Your task to perform on an android device: toggle javascript in the chrome app Image 0: 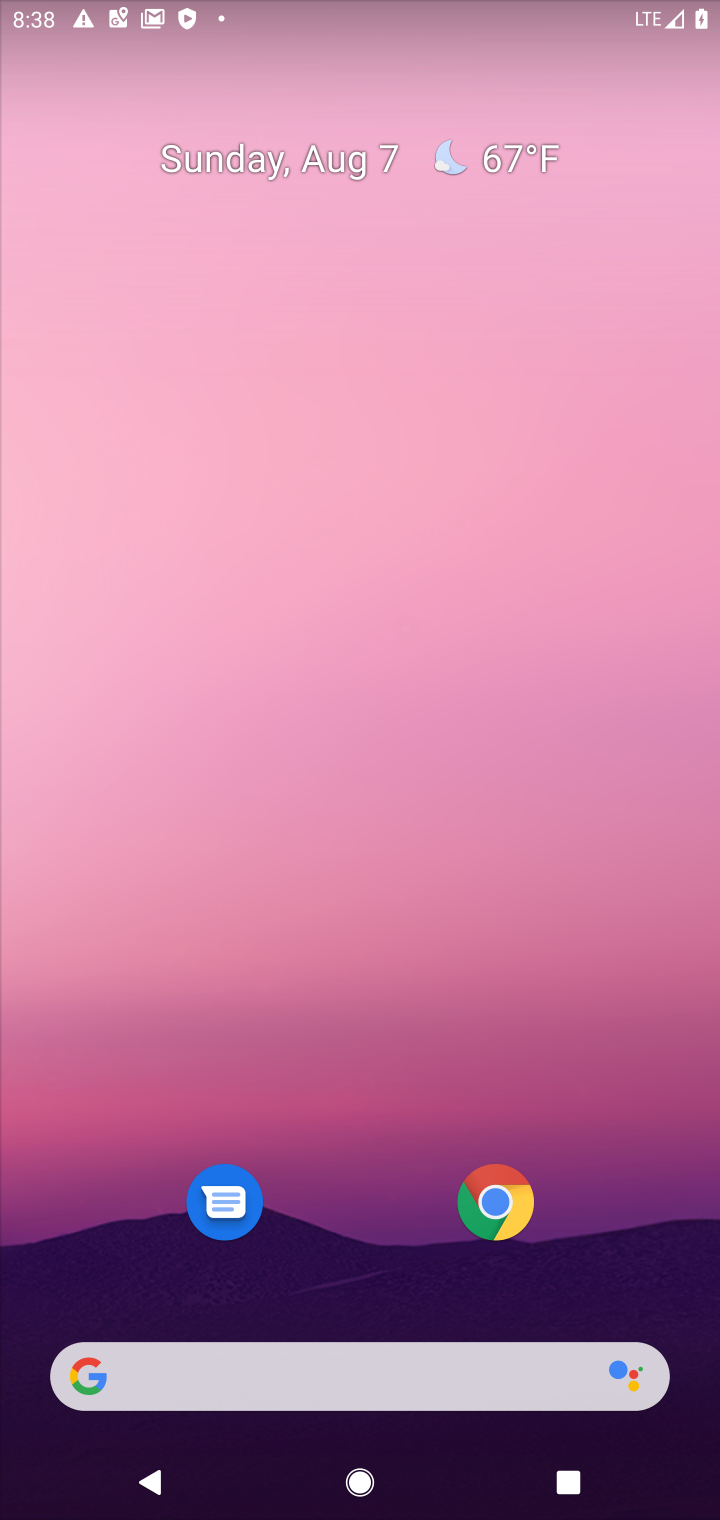
Step 0: click (501, 1201)
Your task to perform on an android device: toggle javascript in the chrome app Image 1: 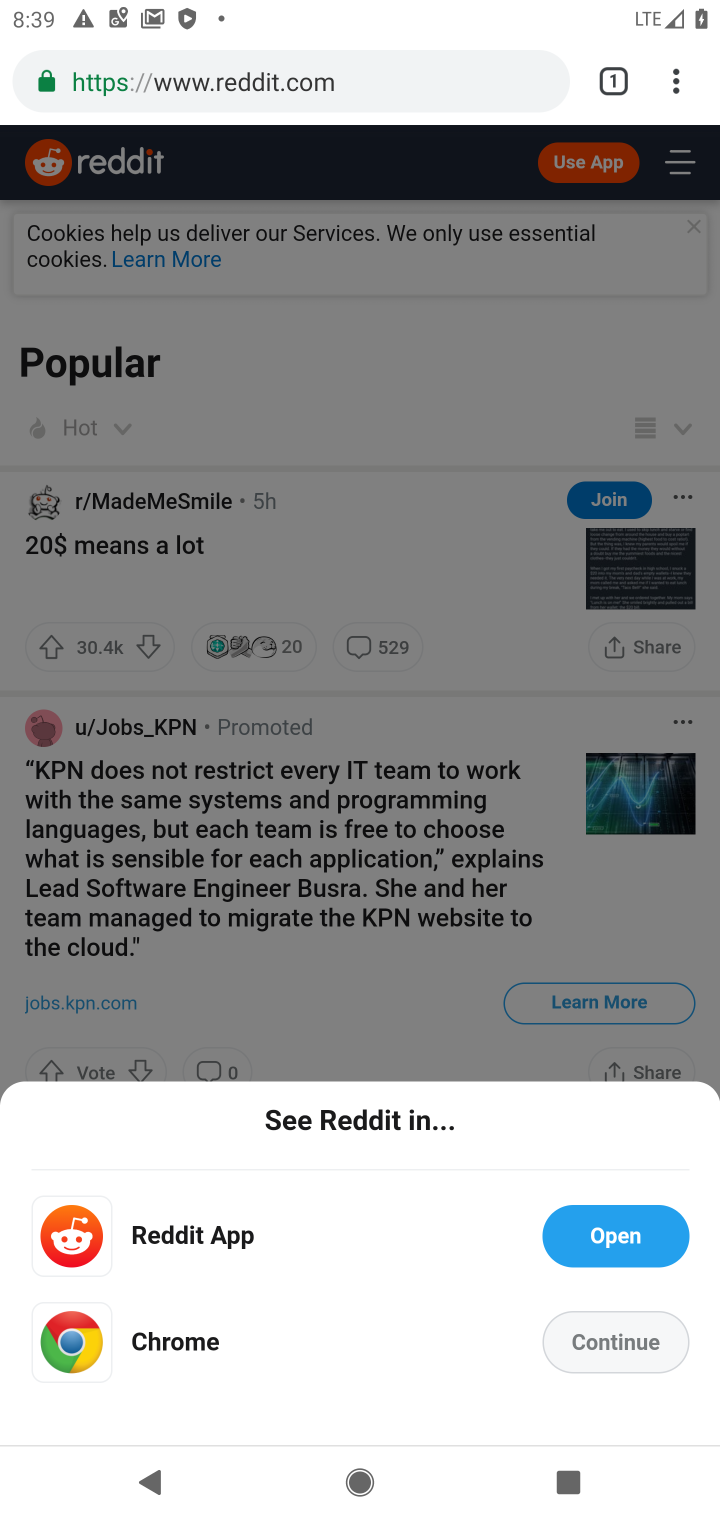
Step 1: click (695, 89)
Your task to perform on an android device: toggle javascript in the chrome app Image 2: 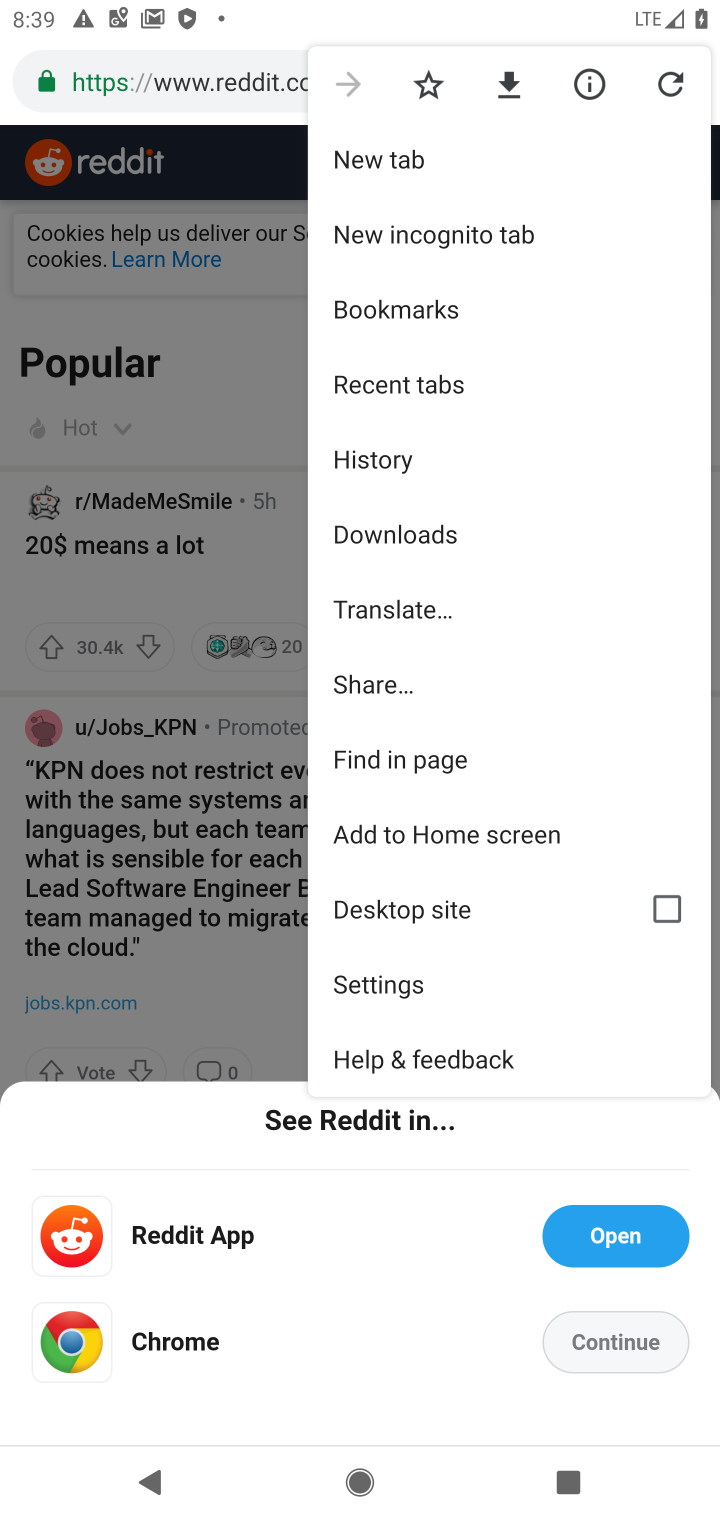
Step 2: click (401, 990)
Your task to perform on an android device: toggle javascript in the chrome app Image 3: 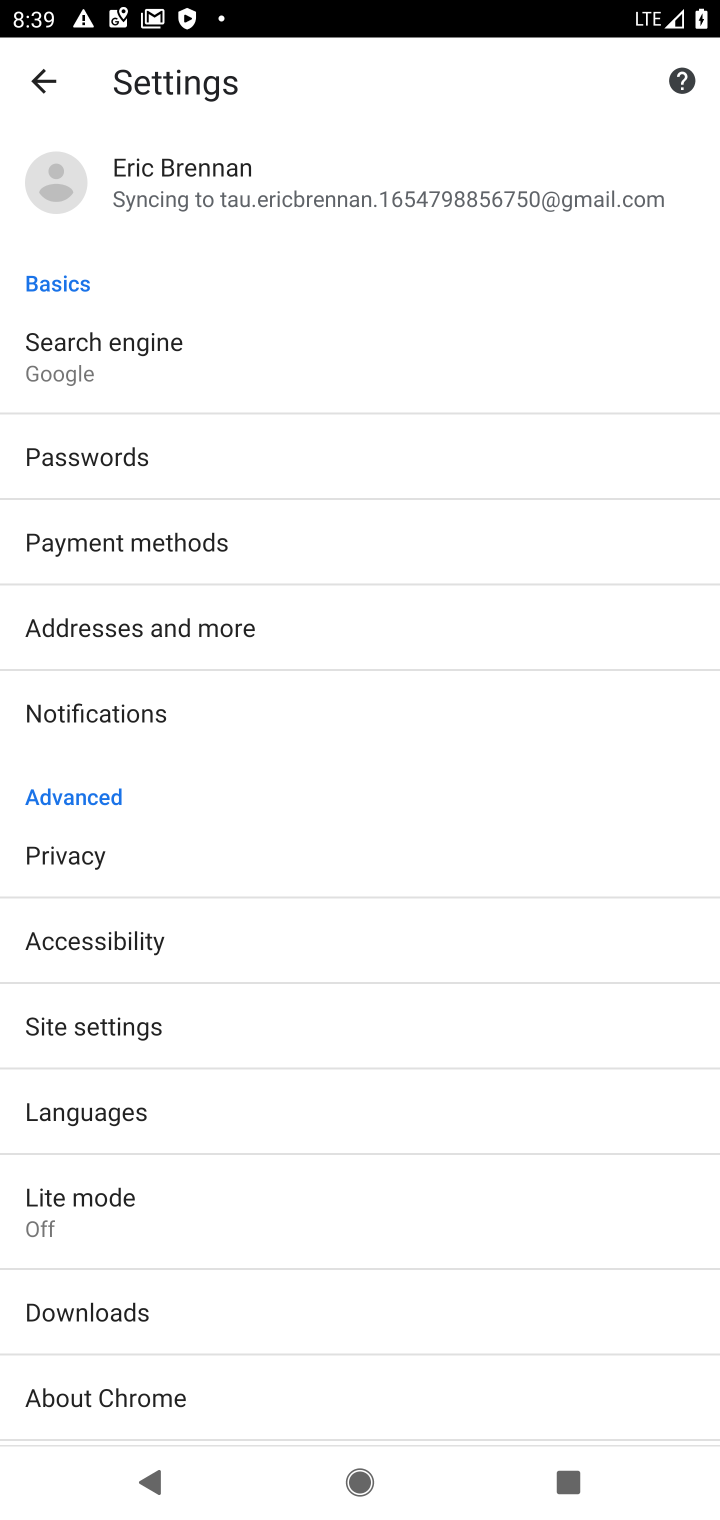
Step 3: click (170, 1027)
Your task to perform on an android device: toggle javascript in the chrome app Image 4: 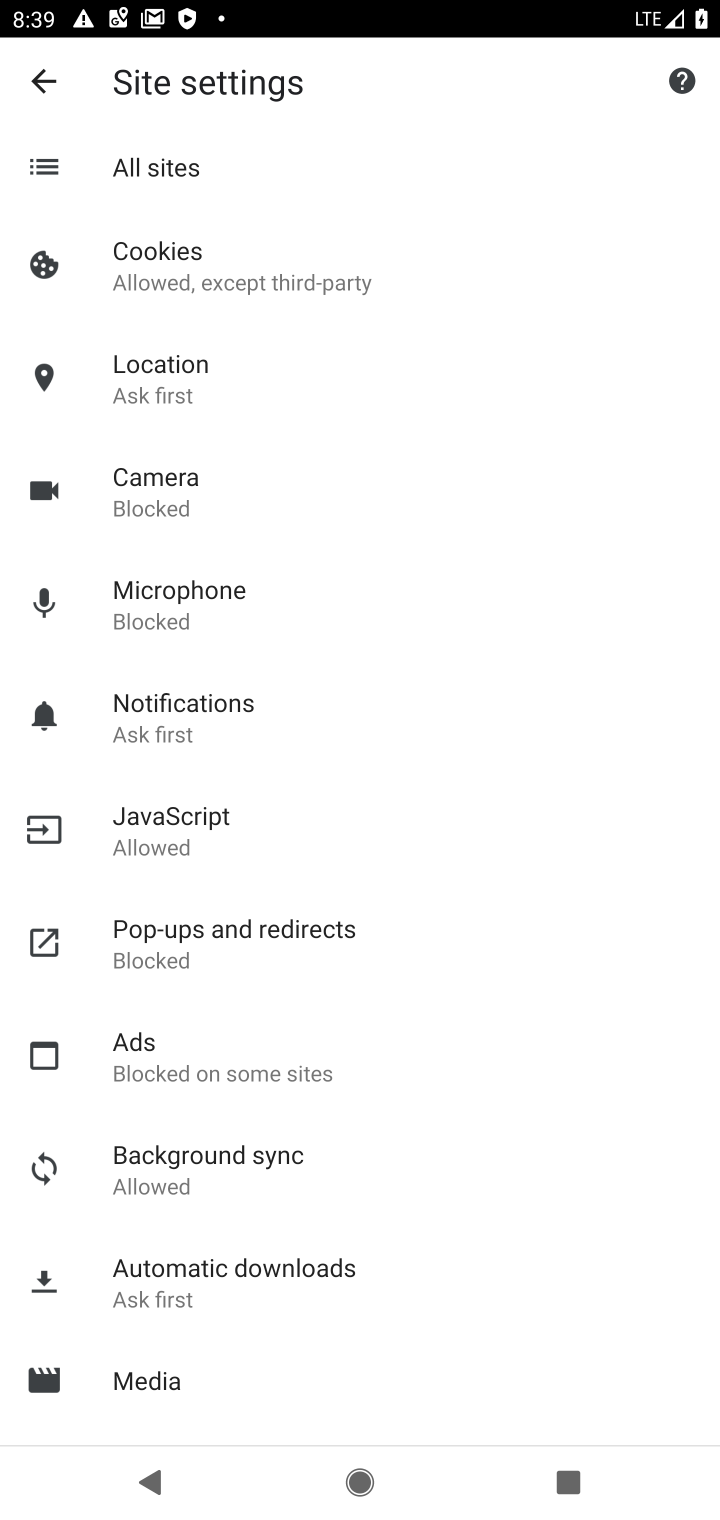
Step 4: click (222, 842)
Your task to perform on an android device: toggle javascript in the chrome app Image 5: 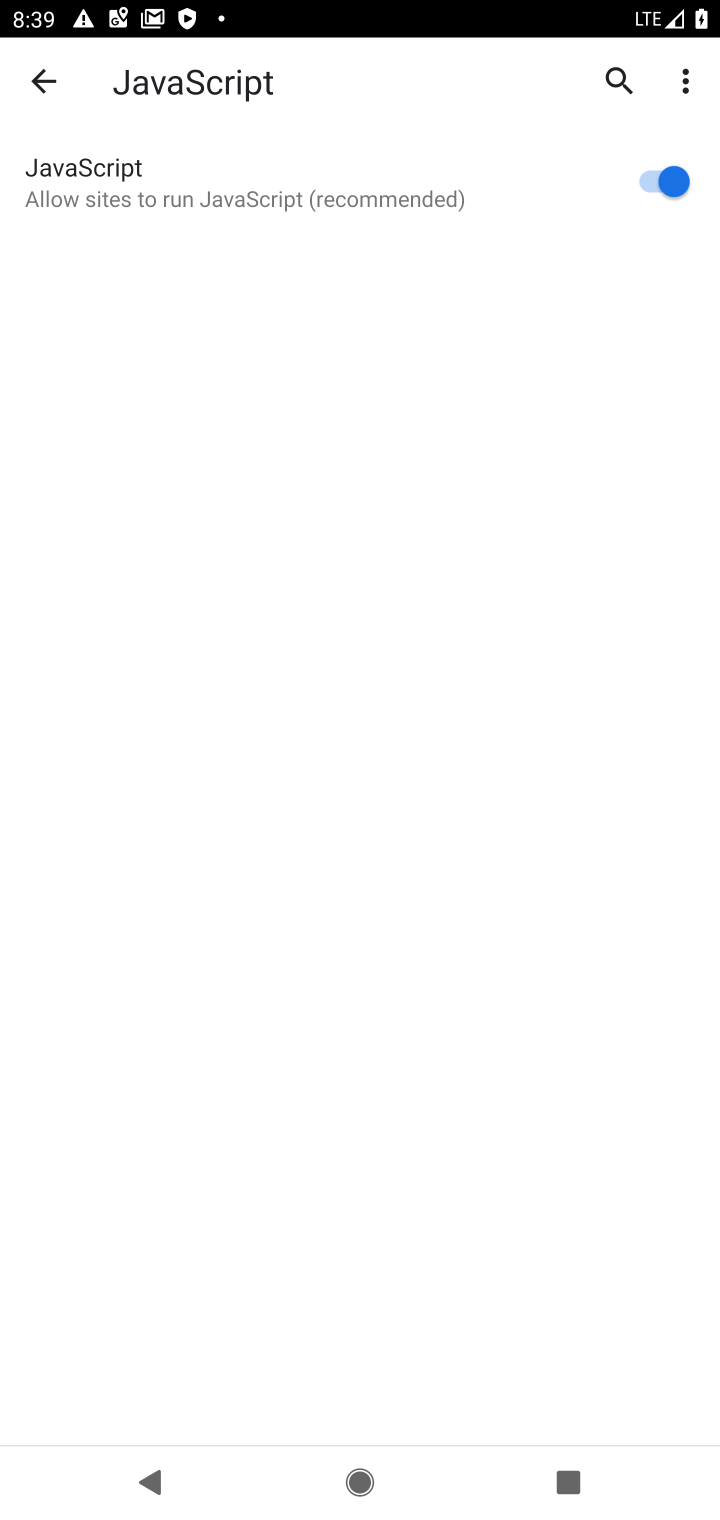
Step 5: click (668, 183)
Your task to perform on an android device: toggle javascript in the chrome app Image 6: 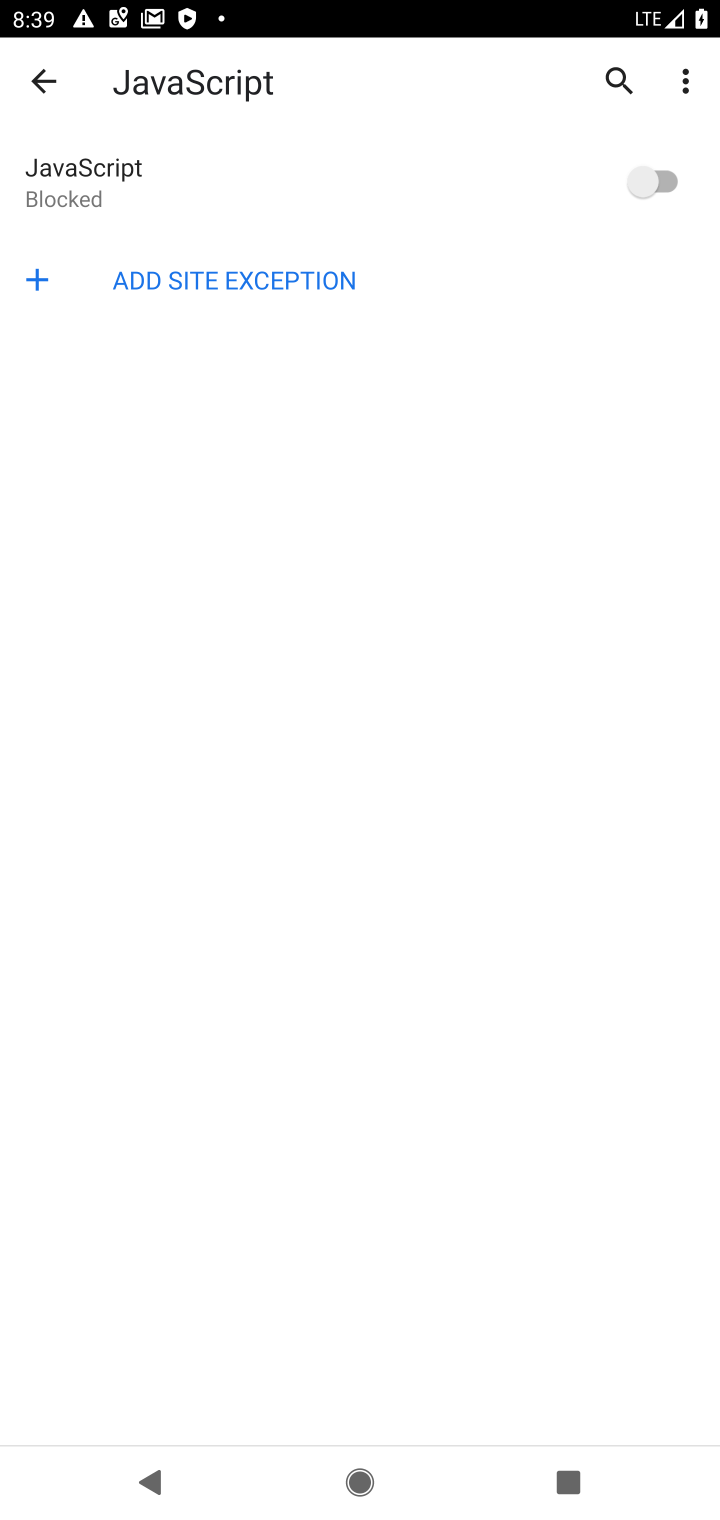
Step 6: task complete